Your task to perform on an android device: Turn on the flashlight Image 0: 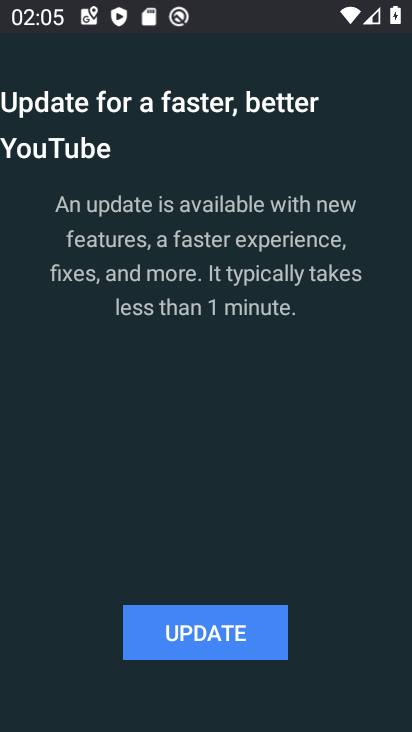
Step 0: press home button
Your task to perform on an android device: Turn on the flashlight Image 1: 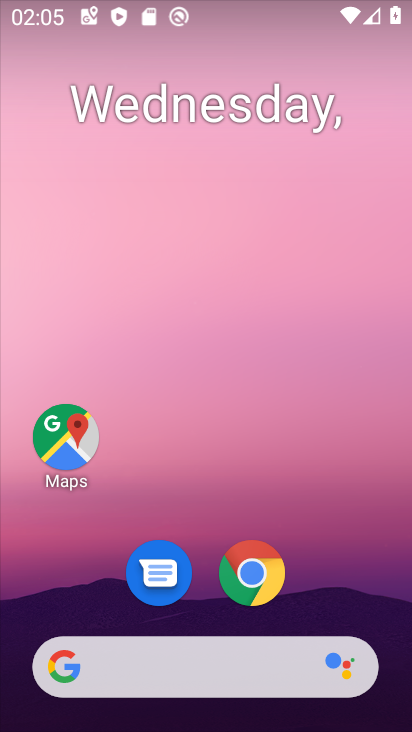
Step 1: drag from (342, 571) to (283, 188)
Your task to perform on an android device: Turn on the flashlight Image 2: 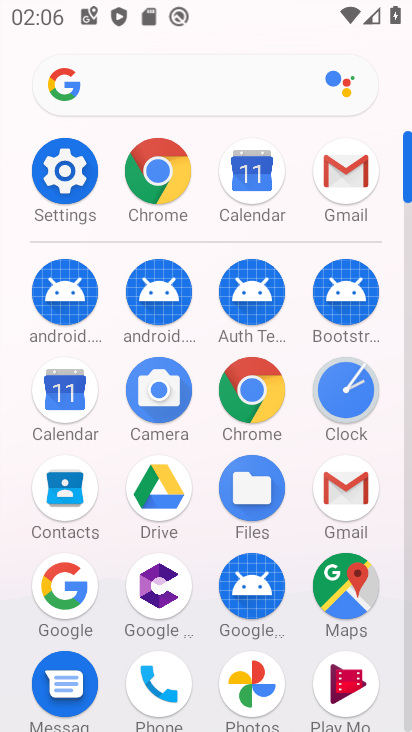
Step 2: click (64, 174)
Your task to perform on an android device: Turn on the flashlight Image 3: 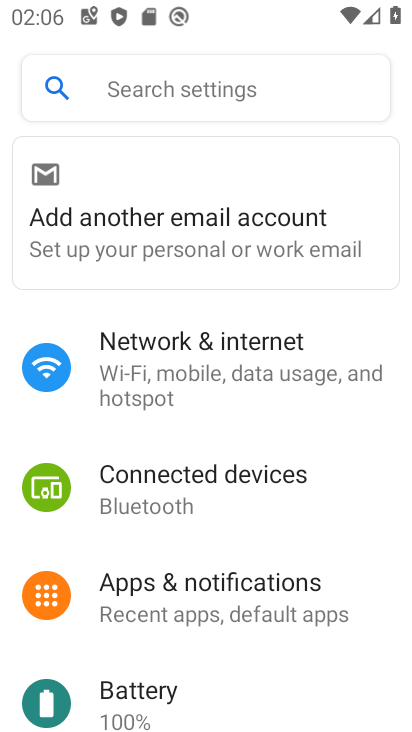
Step 3: drag from (217, 539) to (185, 322)
Your task to perform on an android device: Turn on the flashlight Image 4: 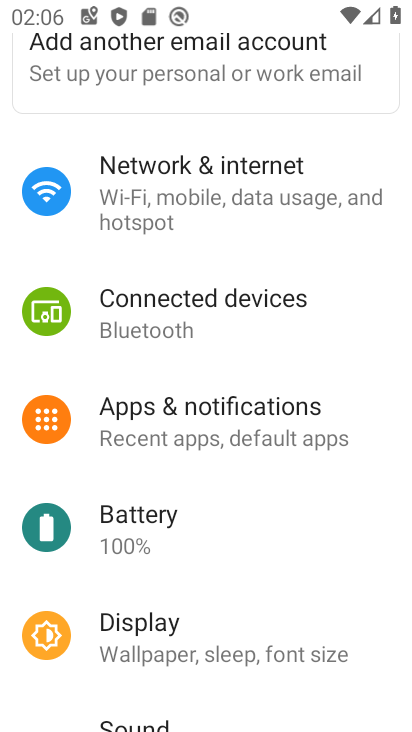
Step 4: click (162, 634)
Your task to perform on an android device: Turn on the flashlight Image 5: 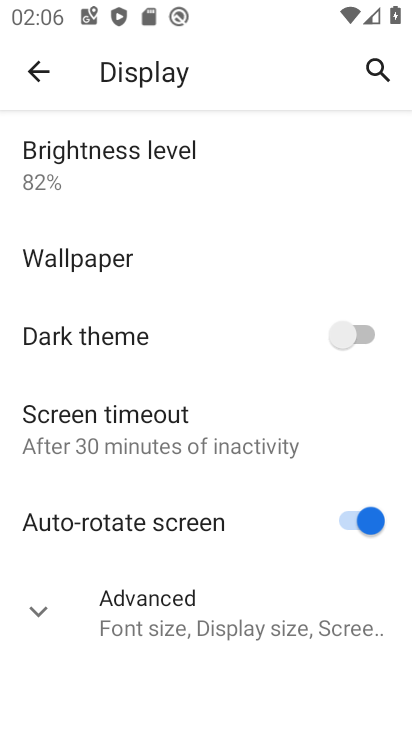
Step 5: click (154, 621)
Your task to perform on an android device: Turn on the flashlight Image 6: 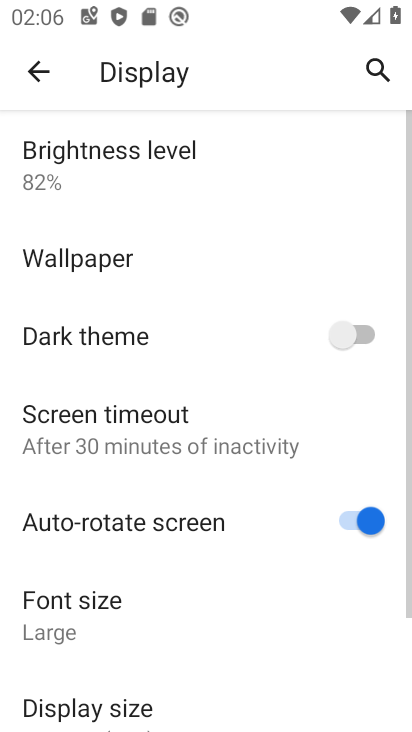
Step 6: drag from (108, 680) to (158, 278)
Your task to perform on an android device: Turn on the flashlight Image 7: 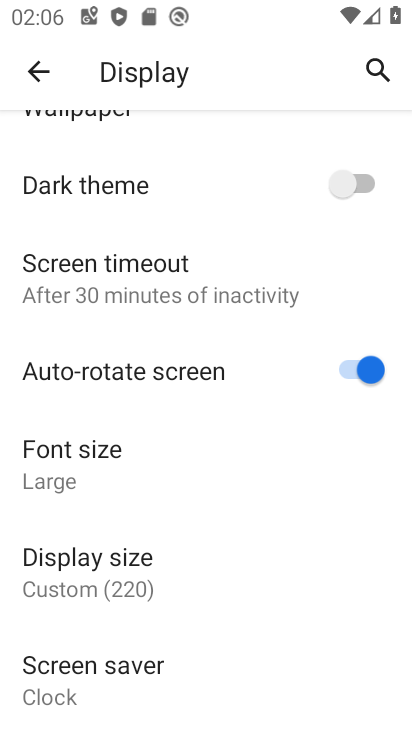
Step 7: drag from (126, 614) to (169, 275)
Your task to perform on an android device: Turn on the flashlight Image 8: 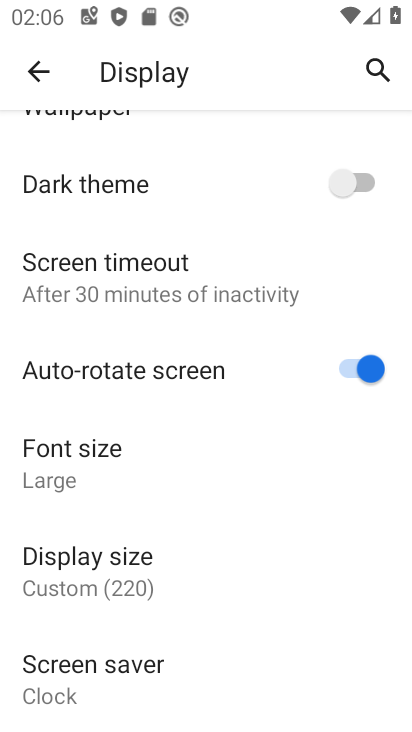
Step 8: click (36, 59)
Your task to perform on an android device: Turn on the flashlight Image 9: 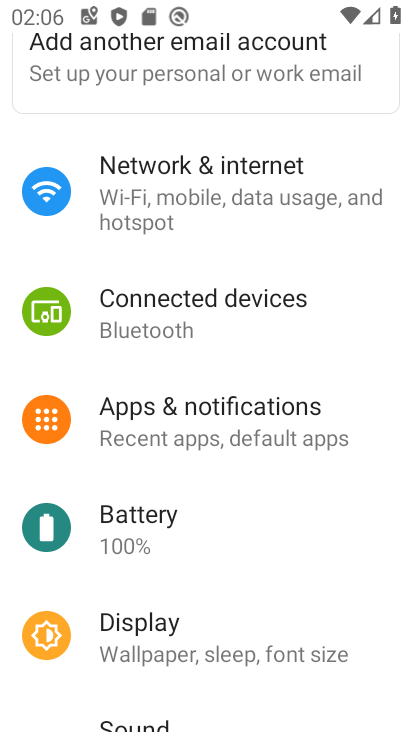
Step 9: drag from (152, 578) to (155, 306)
Your task to perform on an android device: Turn on the flashlight Image 10: 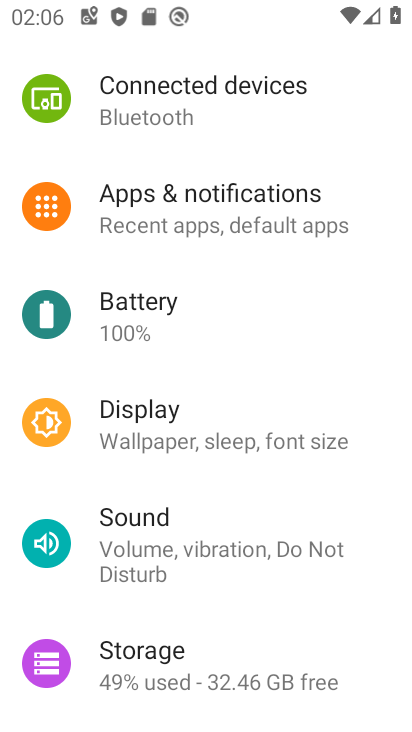
Step 10: click (179, 279)
Your task to perform on an android device: Turn on the flashlight Image 11: 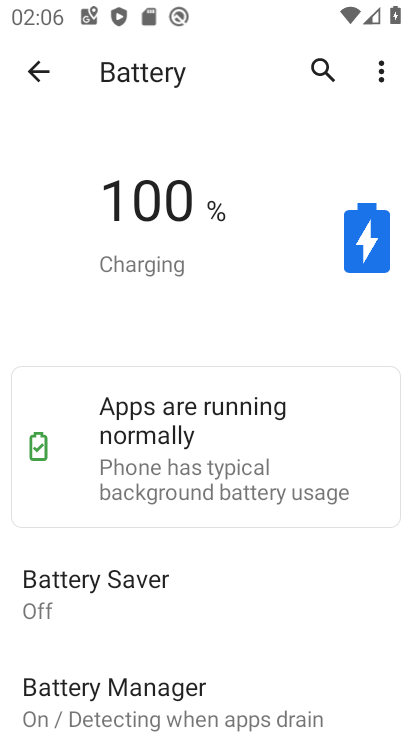
Step 11: click (38, 59)
Your task to perform on an android device: Turn on the flashlight Image 12: 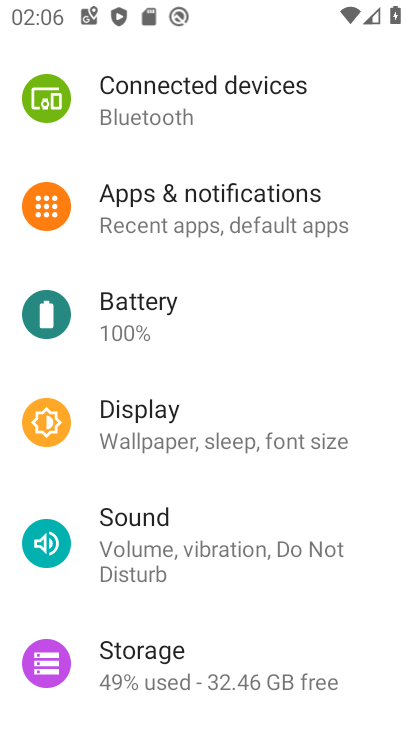
Step 12: task complete